Your task to perform on an android device: Check the weather Image 0: 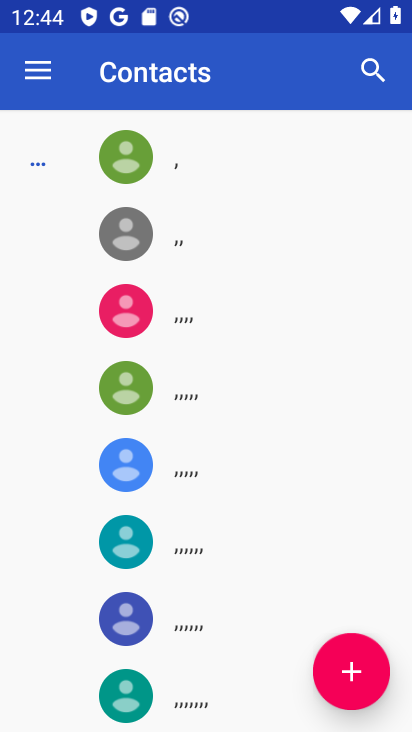
Step 0: press back button
Your task to perform on an android device: Check the weather Image 1: 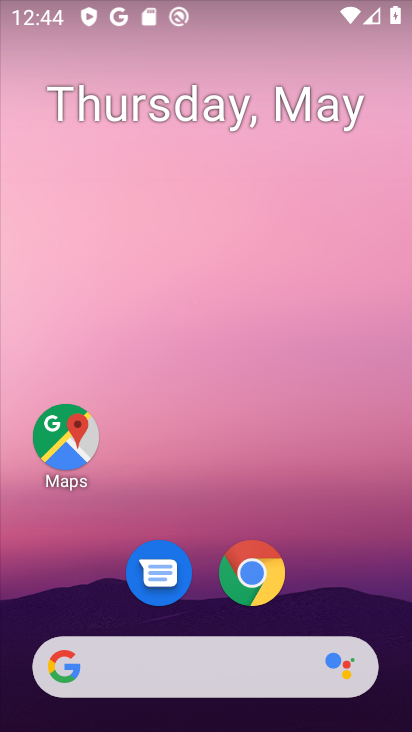
Step 1: drag from (367, 604) to (257, 71)
Your task to perform on an android device: Check the weather Image 2: 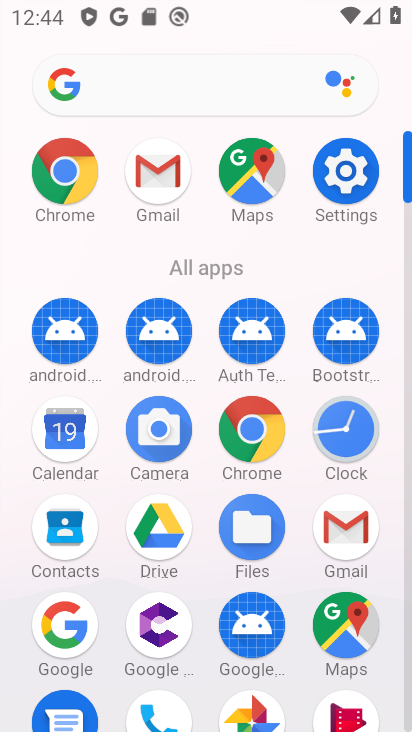
Step 2: click (252, 420)
Your task to perform on an android device: Check the weather Image 3: 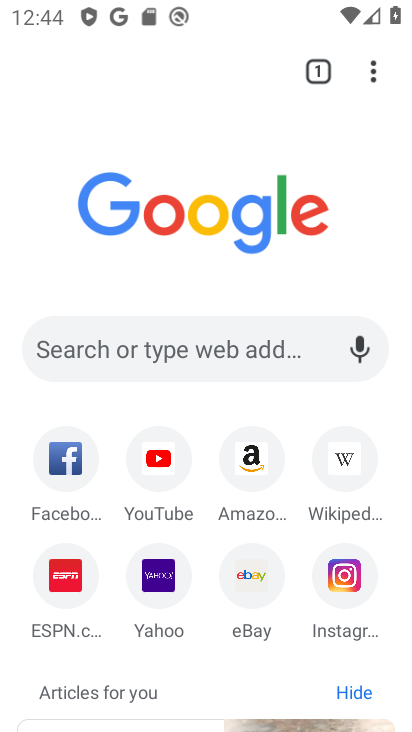
Step 3: click (189, 337)
Your task to perform on an android device: Check the weather Image 4: 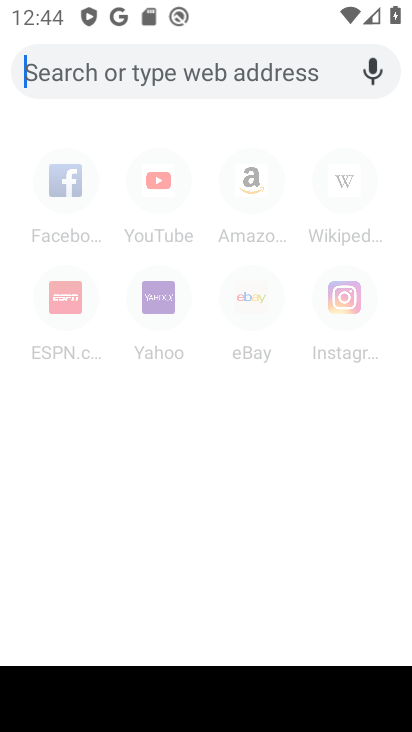
Step 4: type "Check the weather"
Your task to perform on an android device: Check the weather Image 5: 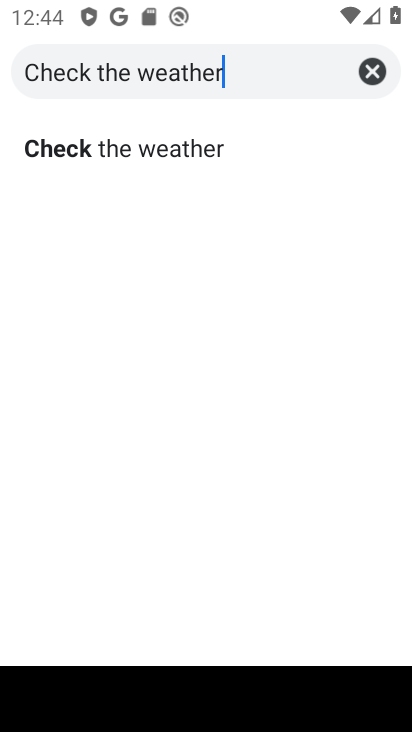
Step 5: type ""
Your task to perform on an android device: Check the weather Image 6: 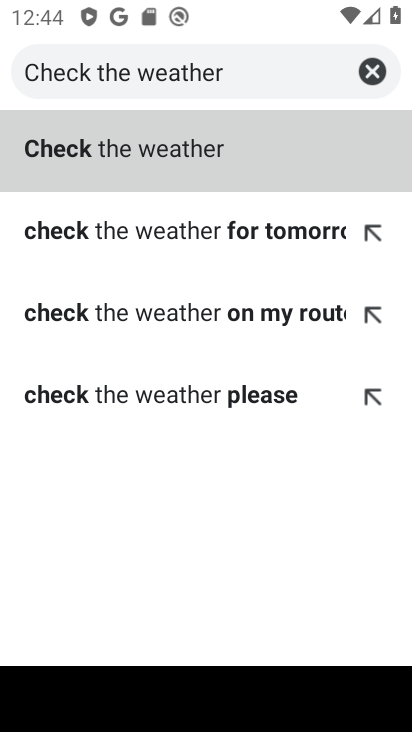
Step 6: click (205, 151)
Your task to perform on an android device: Check the weather Image 7: 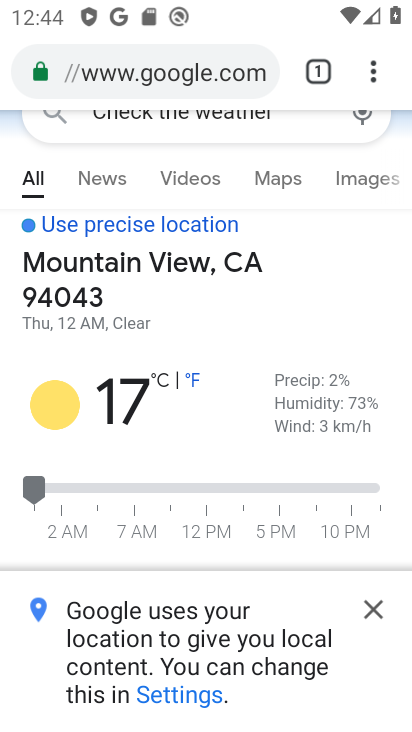
Step 7: task complete